Your task to perform on an android device: toggle data saver in the chrome app Image 0: 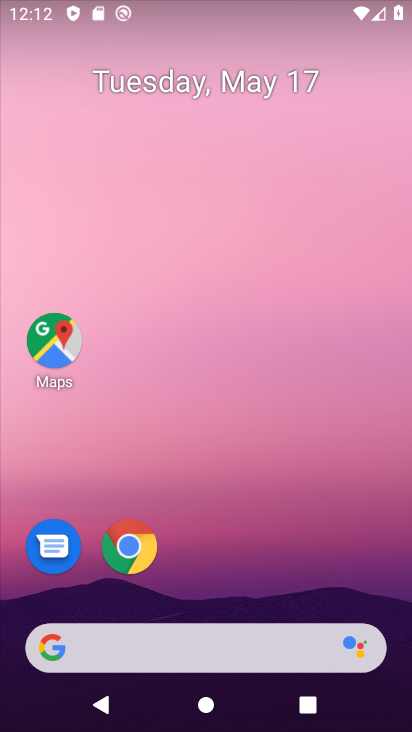
Step 0: drag from (344, 542) to (293, 0)
Your task to perform on an android device: toggle data saver in the chrome app Image 1: 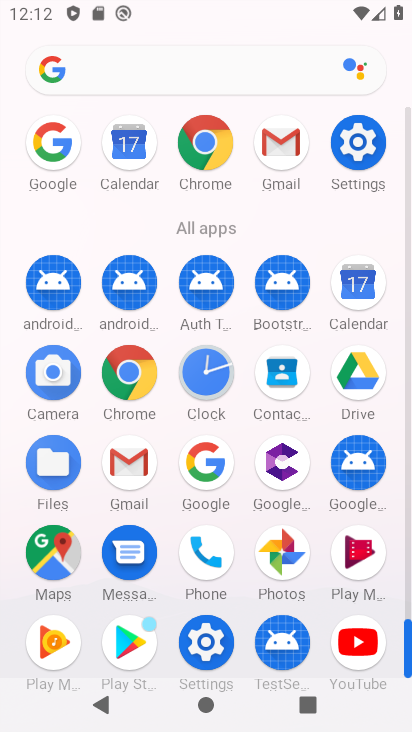
Step 1: click (209, 133)
Your task to perform on an android device: toggle data saver in the chrome app Image 2: 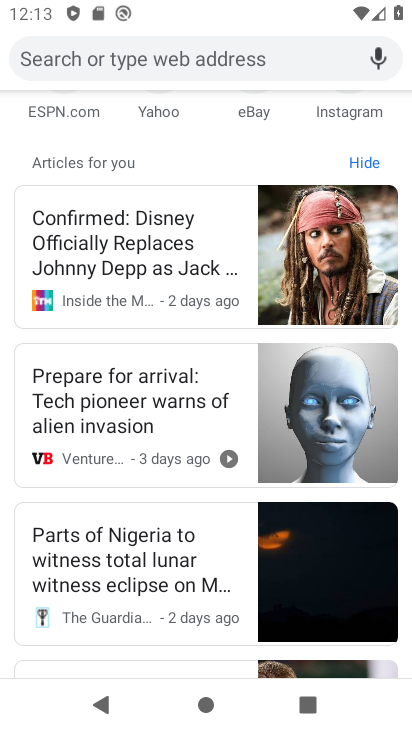
Step 2: drag from (277, 138) to (220, 677)
Your task to perform on an android device: toggle data saver in the chrome app Image 3: 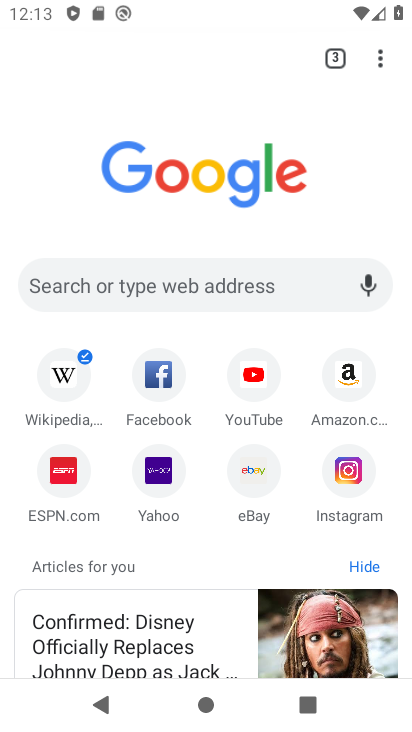
Step 3: drag from (252, 383) to (256, 682)
Your task to perform on an android device: toggle data saver in the chrome app Image 4: 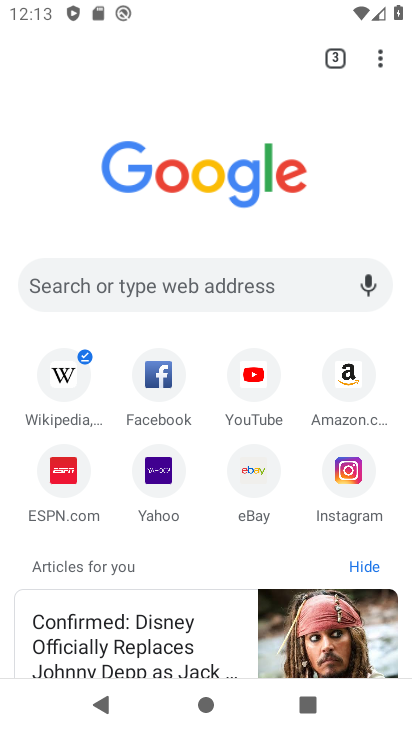
Step 4: drag from (382, 61) to (166, 501)
Your task to perform on an android device: toggle data saver in the chrome app Image 5: 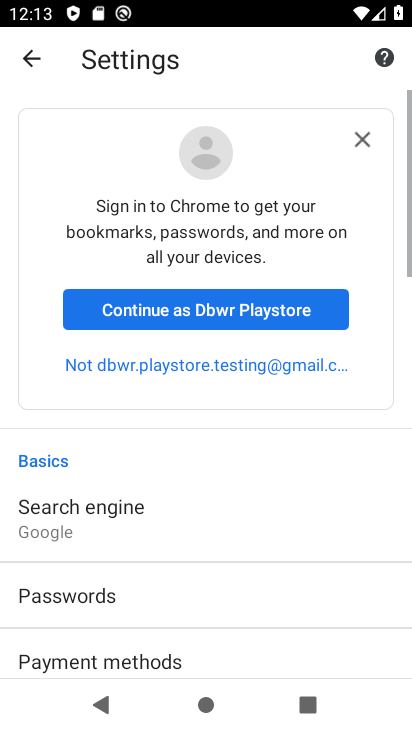
Step 5: drag from (174, 607) to (151, 199)
Your task to perform on an android device: toggle data saver in the chrome app Image 6: 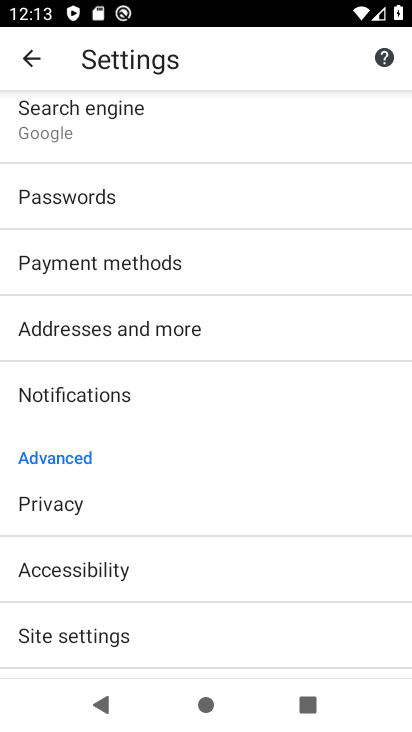
Step 6: drag from (100, 610) to (112, 192)
Your task to perform on an android device: toggle data saver in the chrome app Image 7: 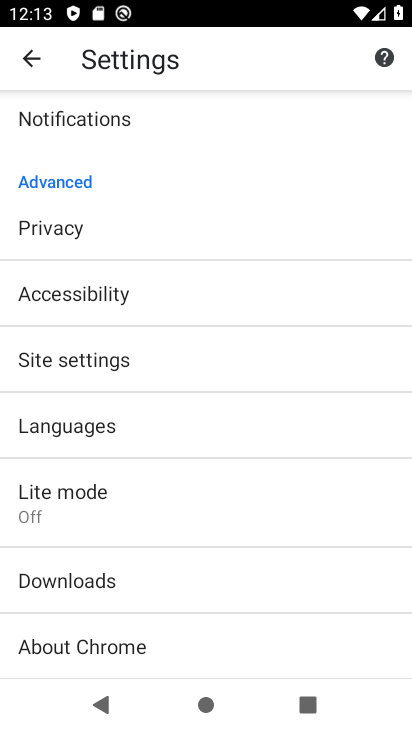
Step 7: click (83, 496)
Your task to perform on an android device: toggle data saver in the chrome app Image 8: 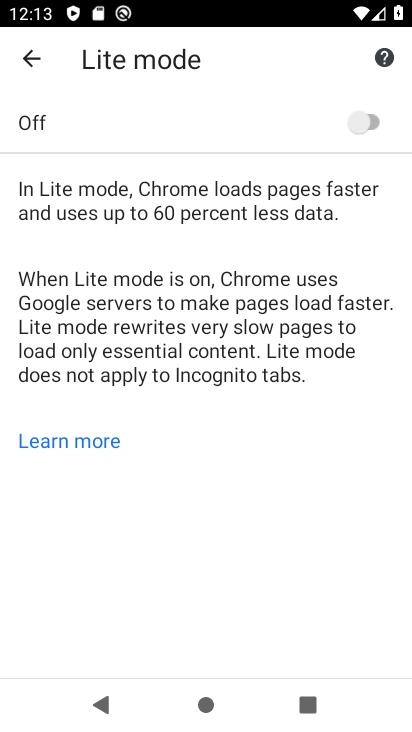
Step 8: click (364, 124)
Your task to perform on an android device: toggle data saver in the chrome app Image 9: 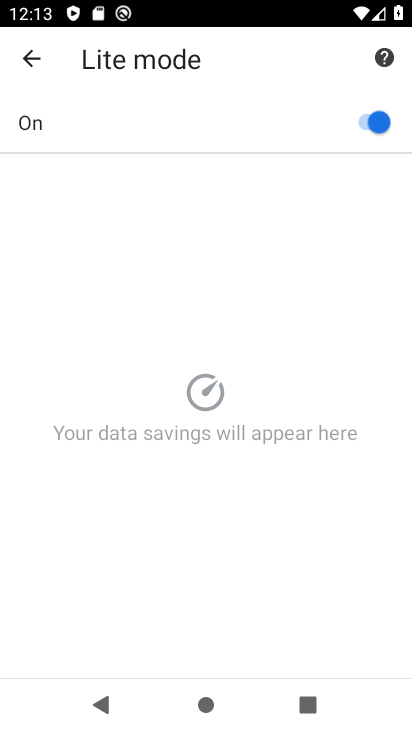
Step 9: task complete